Your task to perform on an android device: Open calendar and show me the second week of next month Image 0: 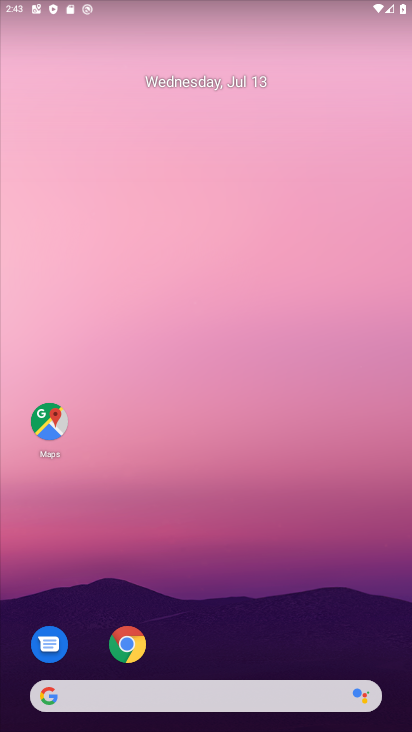
Step 0: drag from (247, 614) to (209, 157)
Your task to perform on an android device: Open calendar and show me the second week of next month Image 1: 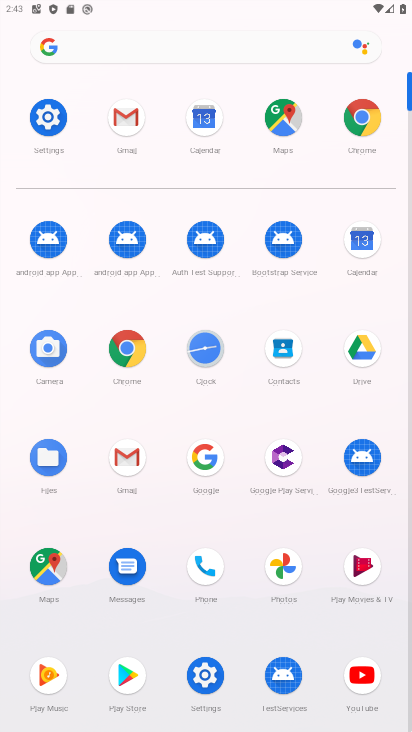
Step 1: click (371, 232)
Your task to perform on an android device: Open calendar and show me the second week of next month Image 2: 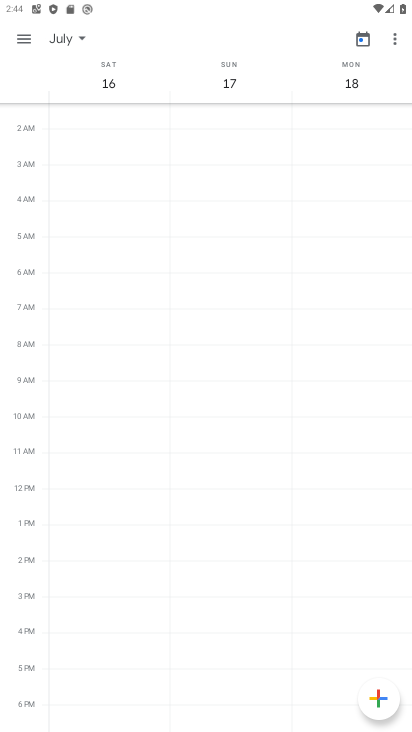
Step 2: click (72, 37)
Your task to perform on an android device: Open calendar and show me the second week of next month Image 3: 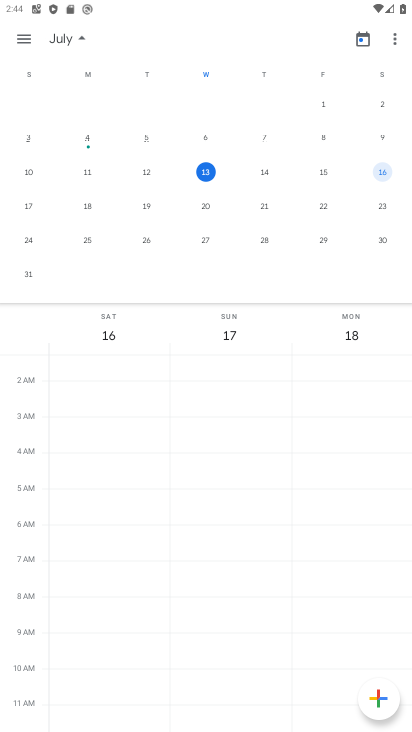
Step 3: drag from (395, 180) to (56, 144)
Your task to perform on an android device: Open calendar and show me the second week of next month Image 4: 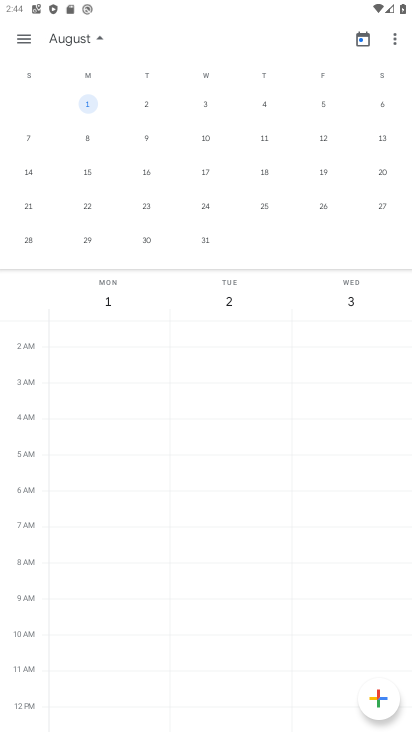
Step 4: click (324, 137)
Your task to perform on an android device: Open calendar and show me the second week of next month Image 5: 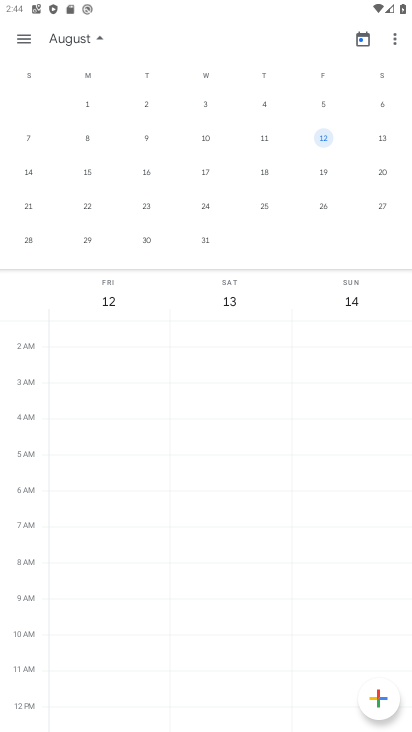
Step 5: task complete